Your task to perform on an android device: Open Google Chrome and click the shortcut for Amazon.com Image 0: 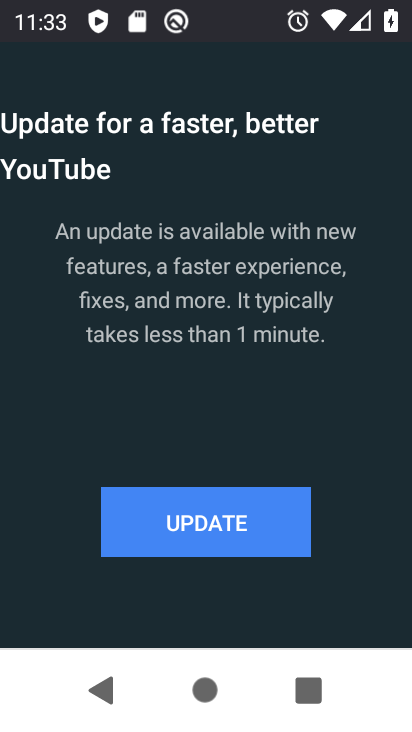
Step 0: press home button
Your task to perform on an android device: Open Google Chrome and click the shortcut for Amazon.com Image 1: 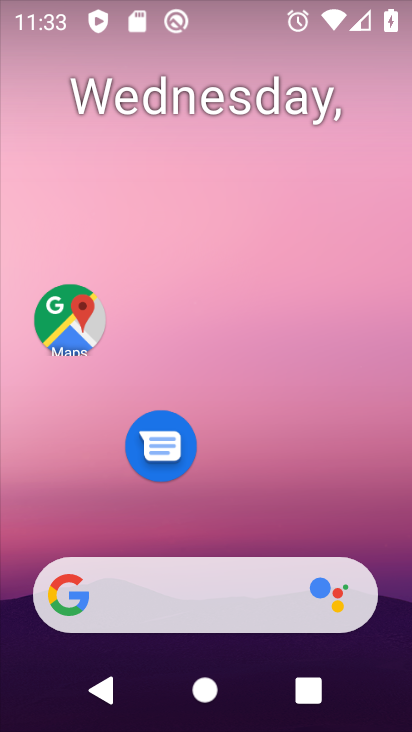
Step 1: drag from (180, 333) to (59, 110)
Your task to perform on an android device: Open Google Chrome and click the shortcut for Amazon.com Image 2: 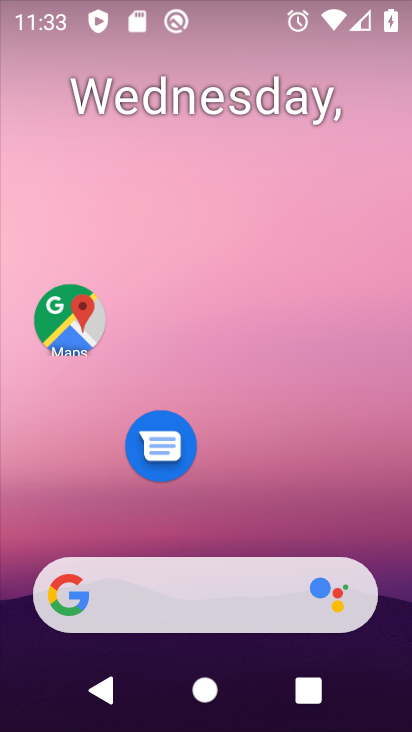
Step 2: drag from (297, 515) to (282, 44)
Your task to perform on an android device: Open Google Chrome and click the shortcut for Amazon.com Image 3: 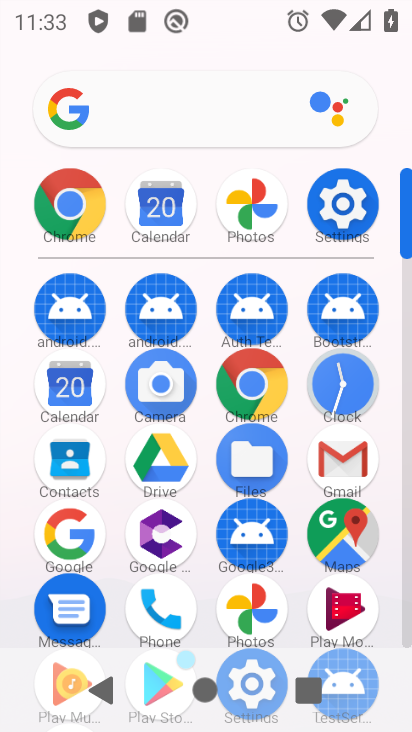
Step 3: click (244, 389)
Your task to perform on an android device: Open Google Chrome and click the shortcut for Amazon.com Image 4: 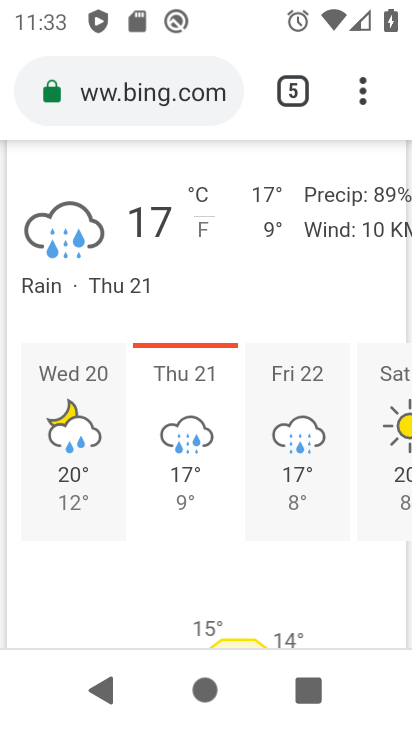
Step 4: click (293, 77)
Your task to perform on an android device: Open Google Chrome and click the shortcut for Amazon.com Image 5: 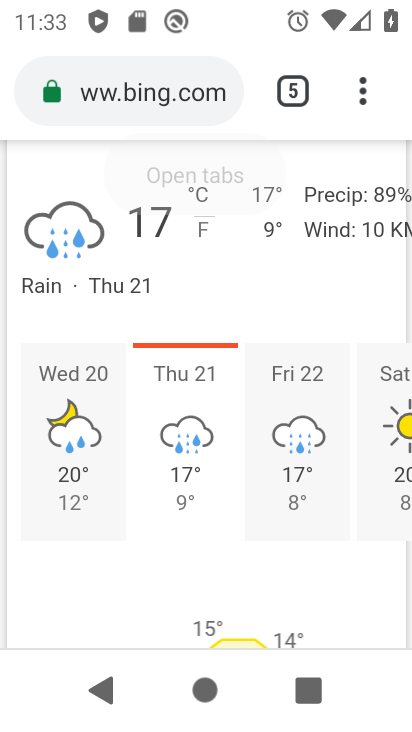
Step 5: click (294, 92)
Your task to perform on an android device: Open Google Chrome and click the shortcut for Amazon.com Image 6: 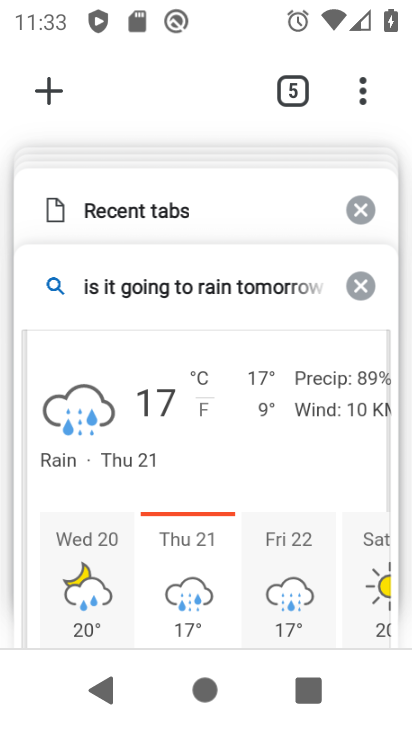
Step 6: click (51, 91)
Your task to perform on an android device: Open Google Chrome and click the shortcut for Amazon.com Image 7: 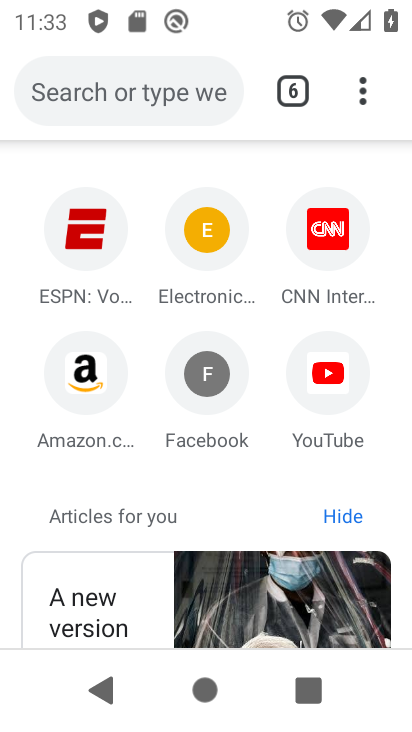
Step 7: click (80, 364)
Your task to perform on an android device: Open Google Chrome and click the shortcut for Amazon.com Image 8: 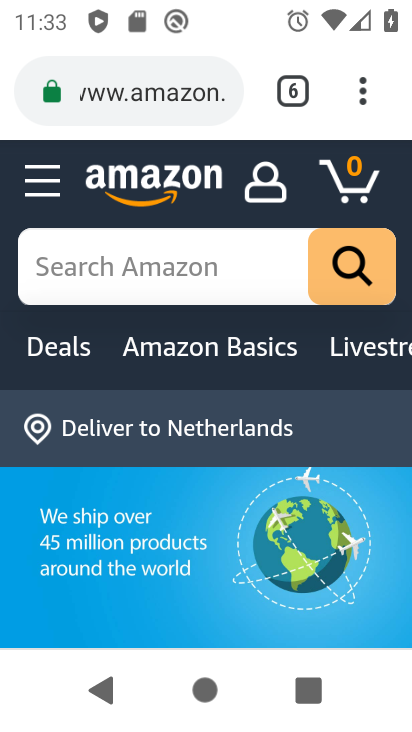
Step 8: task complete